Your task to perform on an android device: turn on data saver in the chrome app Image 0: 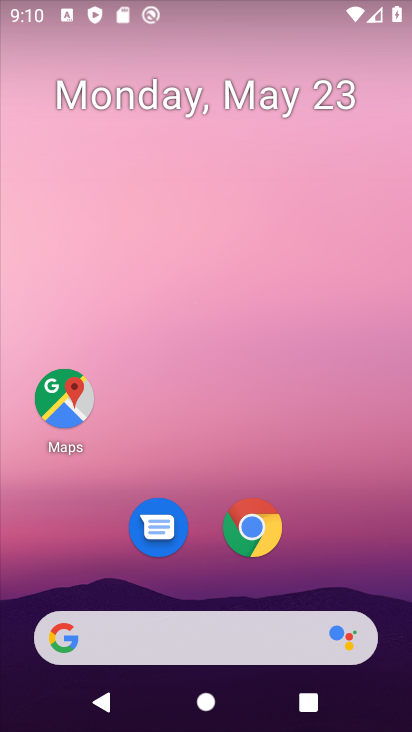
Step 0: drag from (350, 551) to (233, 21)
Your task to perform on an android device: turn on data saver in the chrome app Image 1: 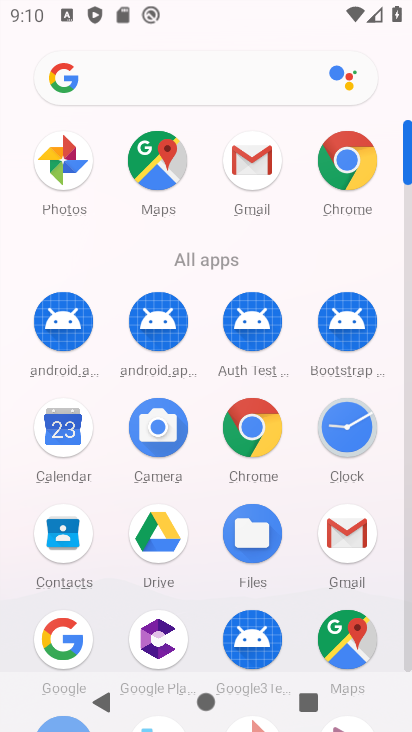
Step 1: drag from (4, 605) to (28, 226)
Your task to perform on an android device: turn on data saver in the chrome app Image 2: 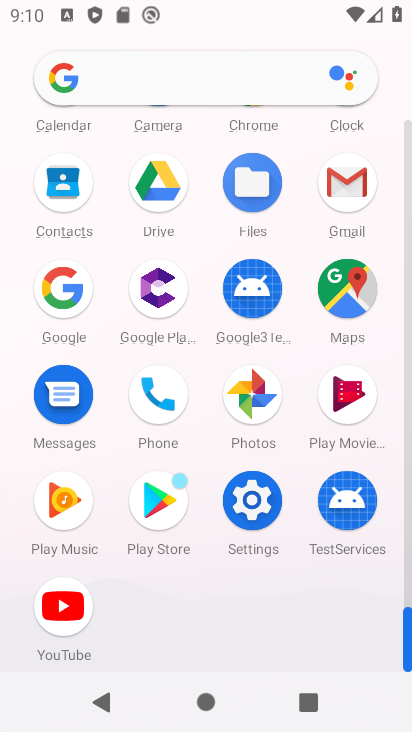
Step 2: drag from (10, 190) to (6, 544)
Your task to perform on an android device: turn on data saver in the chrome app Image 3: 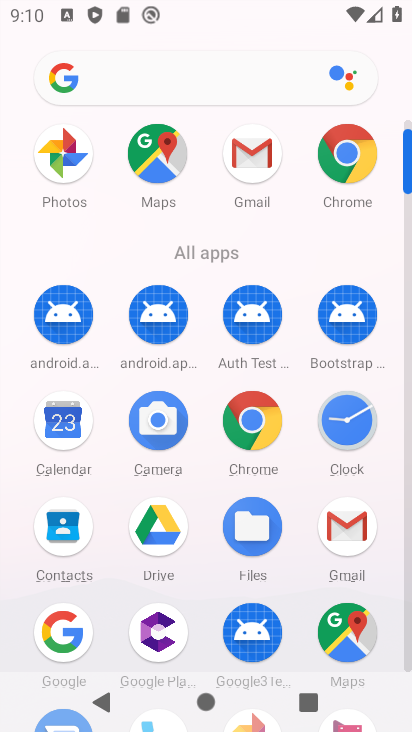
Step 3: click (255, 416)
Your task to perform on an android device: turn on data saver in the chrome app Image 4: 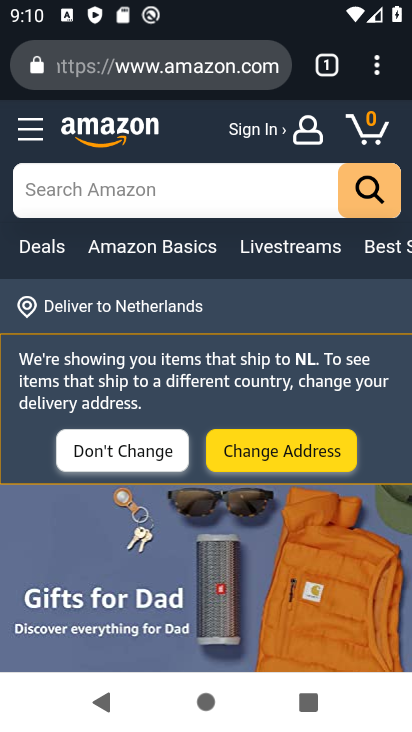
Step 4: drag from (370, 73) to (186, 581)
Your task to perform on an android device: turn on data saver in the chrome app Image 5: 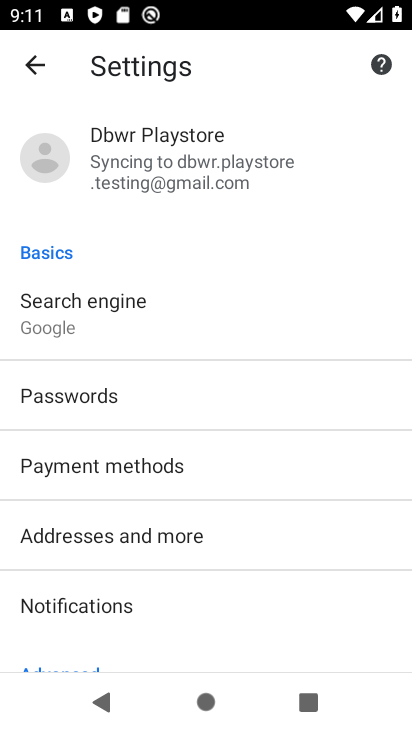
Step 5: drag from (248, 554) to (292, 193)
Your task to perform on an android device: turn on data saver in the chrome app Image 6: 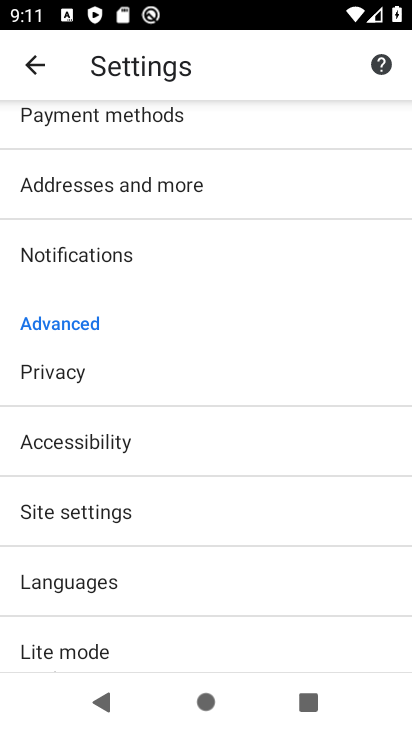
Step 6: drag from (219, 579) to (247, 247)
Your task to perform on an android device: turn on data saver in the chrome app Image 7: 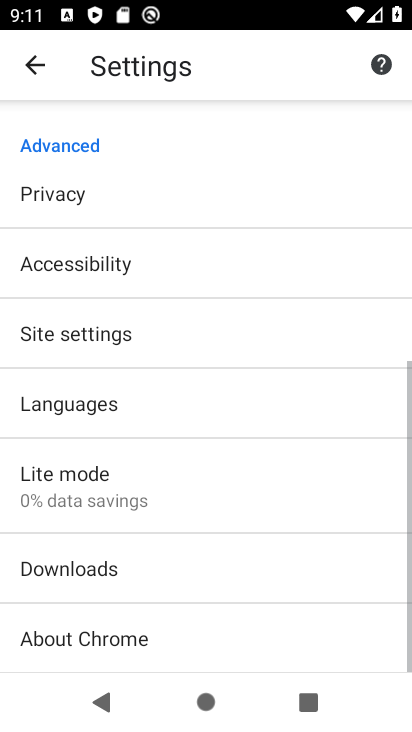
Step 7: click (156, 484)
Your task to perform on an android device: turn on data saver in the chrome app Image 8: 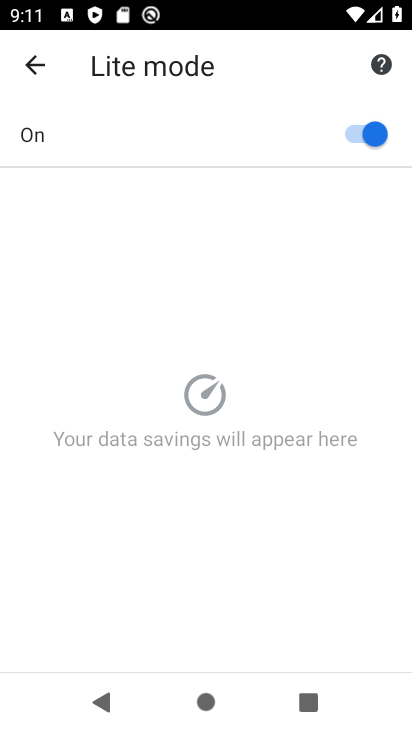
Step 8: task complete